Your task to perform on an android device: turn off notifications settings in the gmail app Image 0: 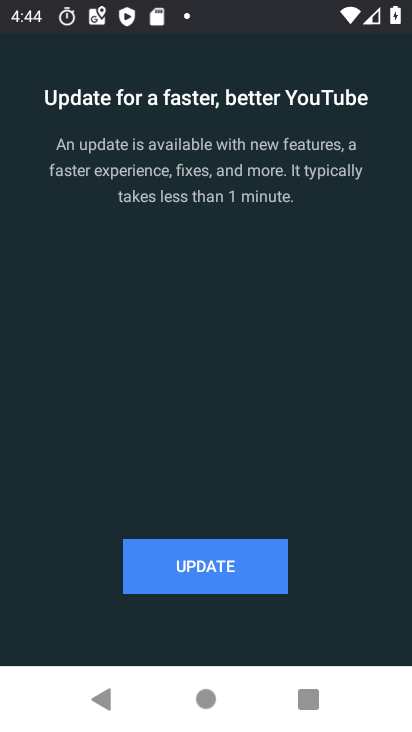
Step 0: press home button
Your task to perform on an android device: turn off notifications settings in the gmail app Image 1: 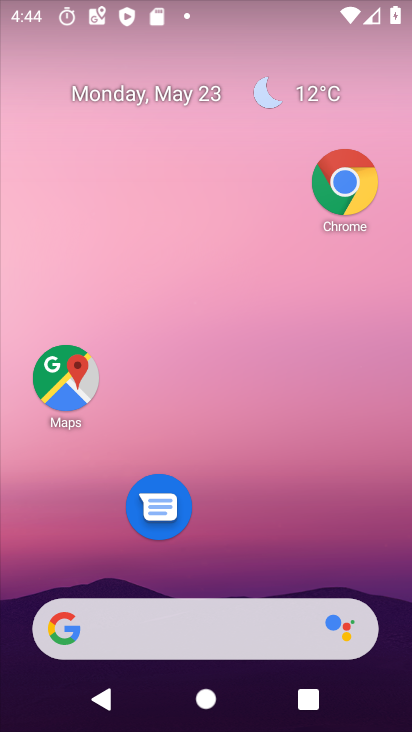
Step 1: drag from (208, 562) to (213, 125)
Your task to perform on an android device: turn off notifications settings in the gmail app Image 2: 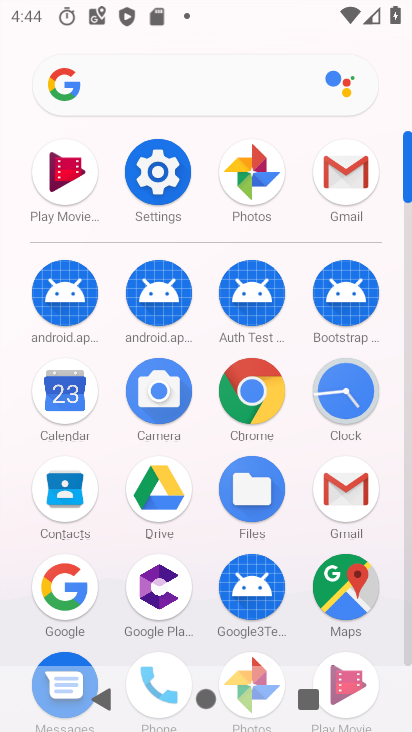
Step 2: click (355, 164)
Your task to perform on an android device: turn off notifications settings in the gmail app Image 3: 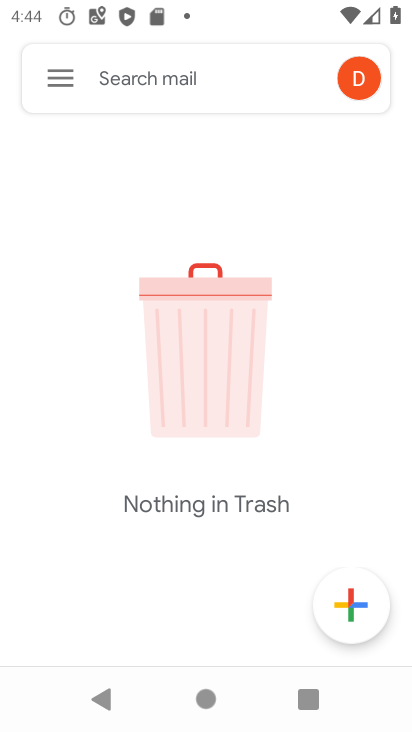
Step 3: click (66, 84)
Your task to perform on an android device: turn off notifications settings in the gmail app Image 4: 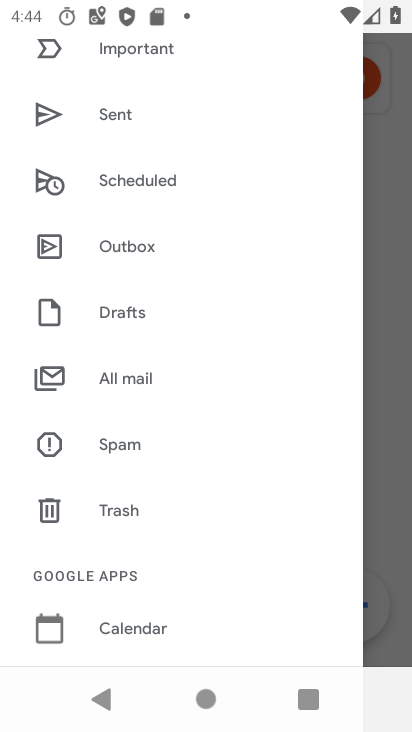
Step 4: drag from (118, 598) to (214, 122)
Your task to perform on an android device: turn off notifications settings in the gmail app Image 5: 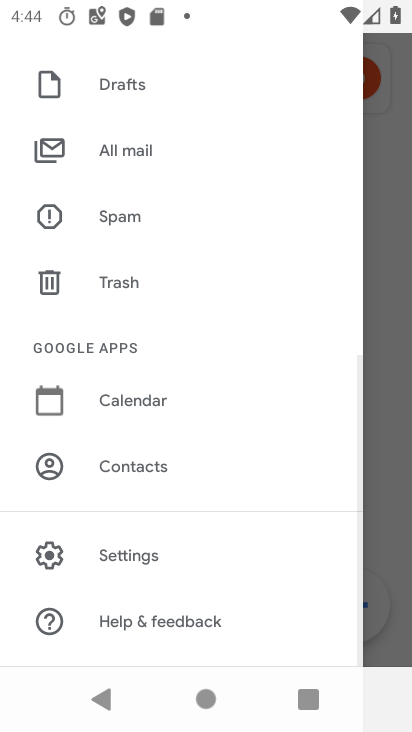
Step 5: click (155, 553)
Your task to perform on an android device: turn off notifications settings in the gmail app Image 6: 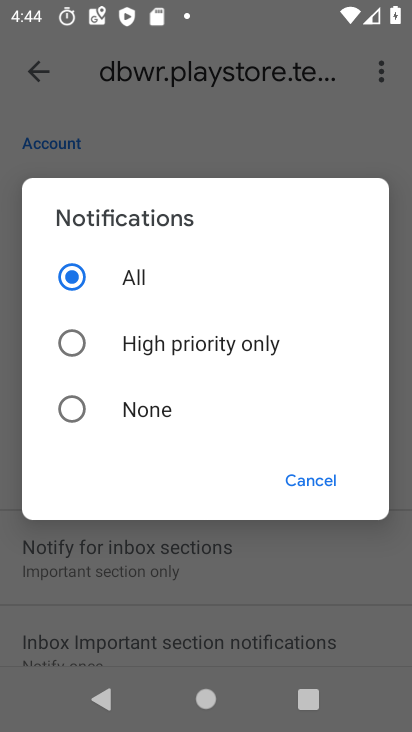
Step 6: click (135, 417)
Your task to perform on an android device: turn off notifications settings in the gmail app Image 7: 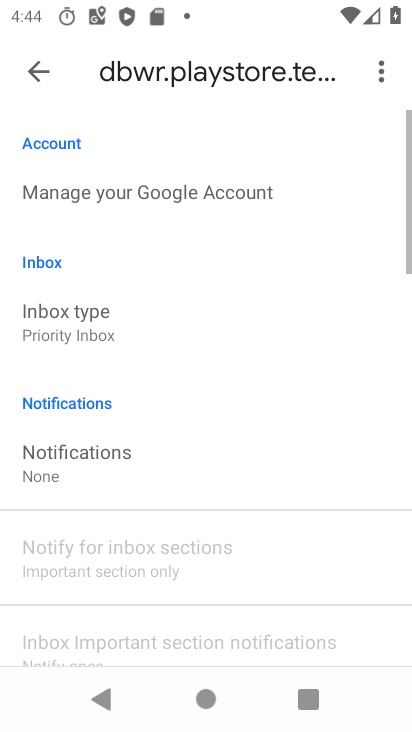
Step 7: task complete